Your task to perform on an android device: Go to Google maps Image 0: 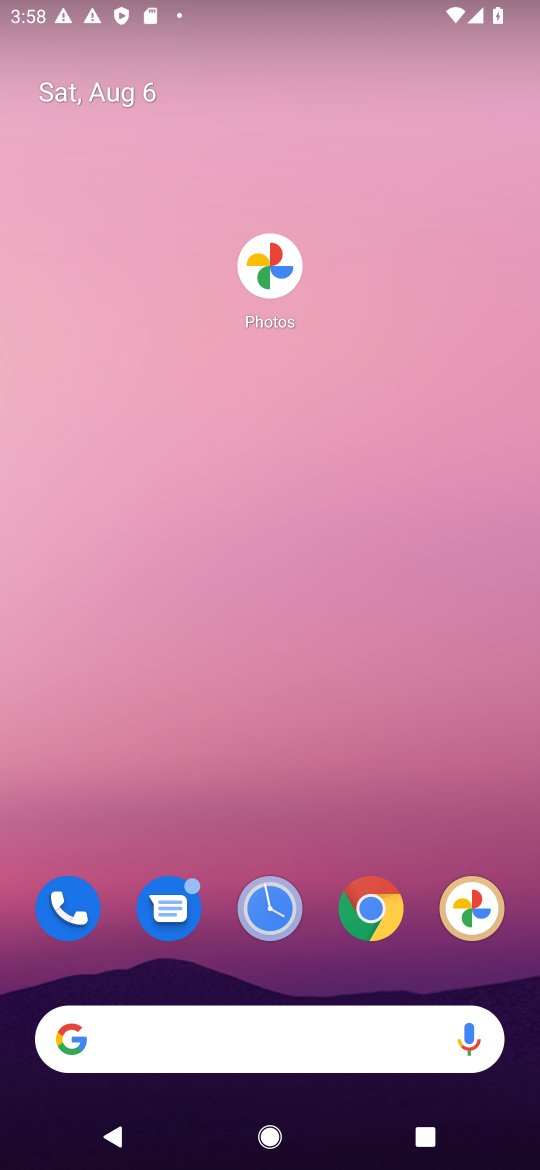
Step 0: drag from (275, 989) to (319, 335)
Your task to perform on an android device: Go to Google maps Image 1: 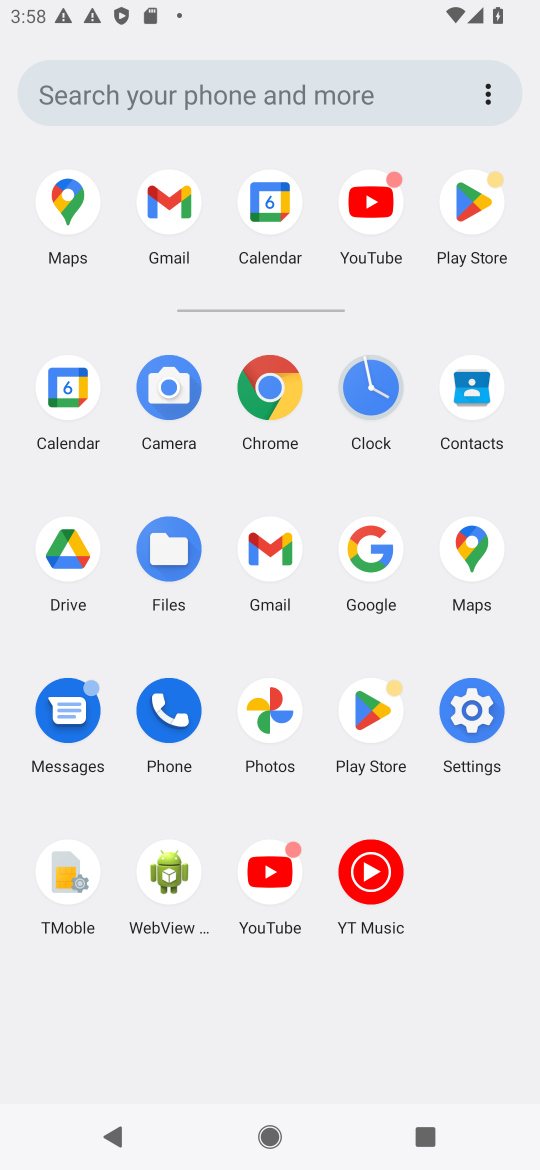
Step 1: click (471, 580)
Your task to perform on an android device: Go to Google maps Image 2: 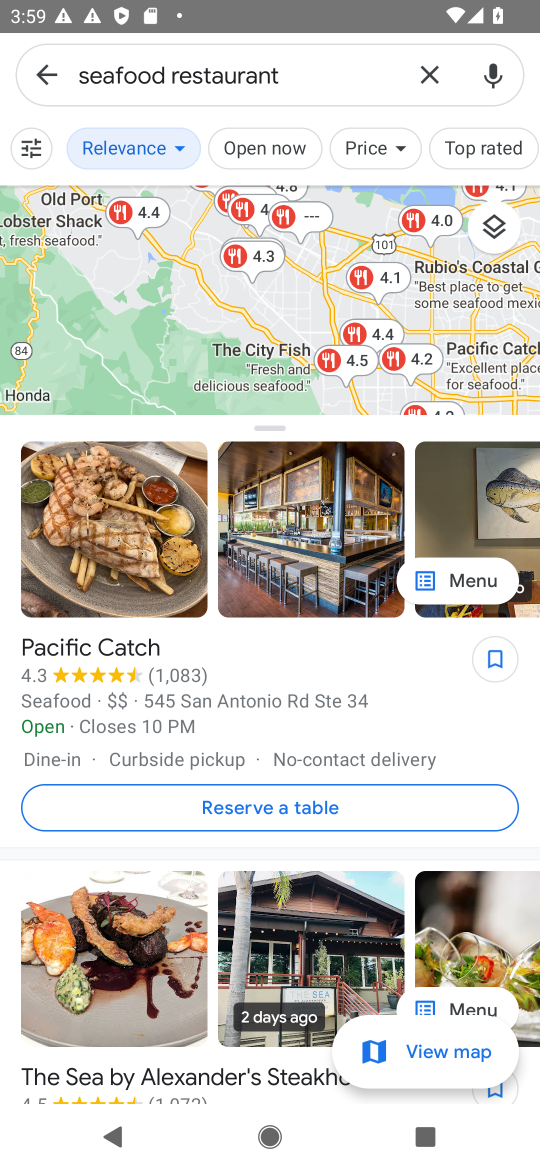
Step 2: click (53, 75)
Your task to perform on an android device: Go to Google maps Image 3: 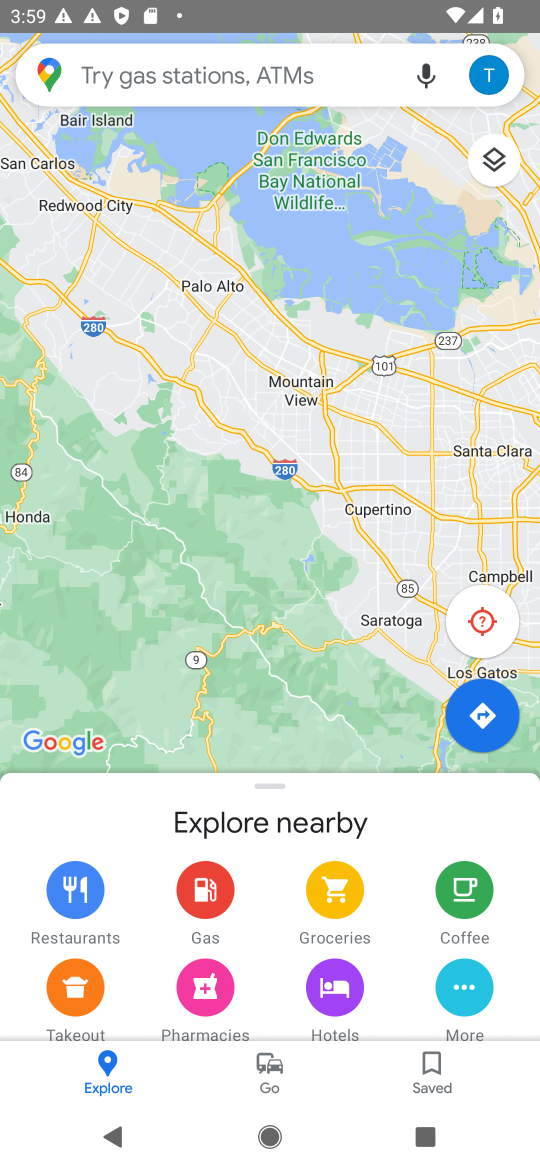
Step 3: task complete